Your task to perform on an android device: open wifi settings Image 0: 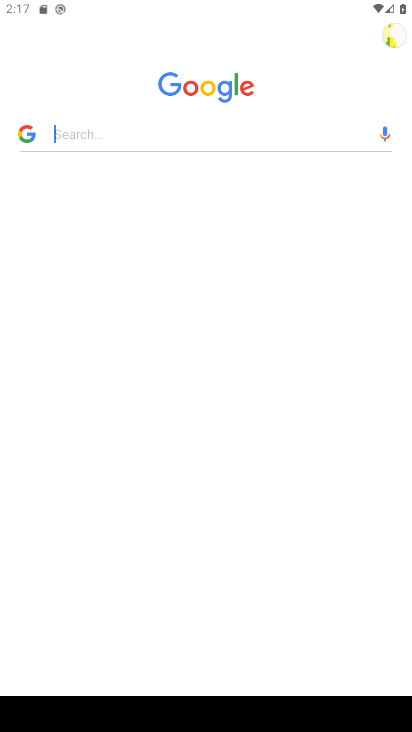
Step 0: press back button
Your task to perform on an android device: open wifi settings Image 1: 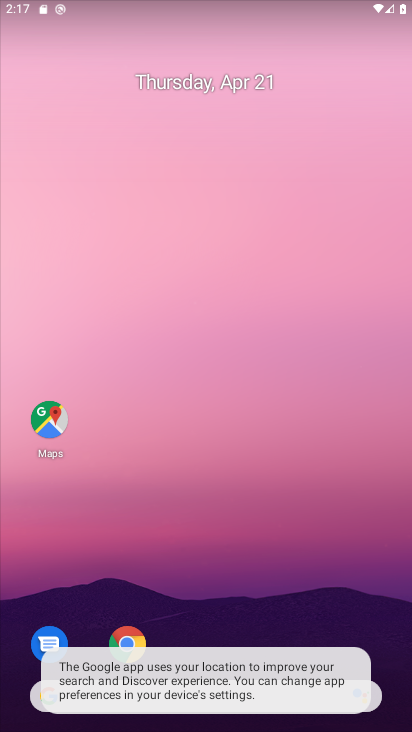
Step 1: drag from (210, 621) to (372, 50)
Your task to perform on an android device: open wifi settings Image 2: 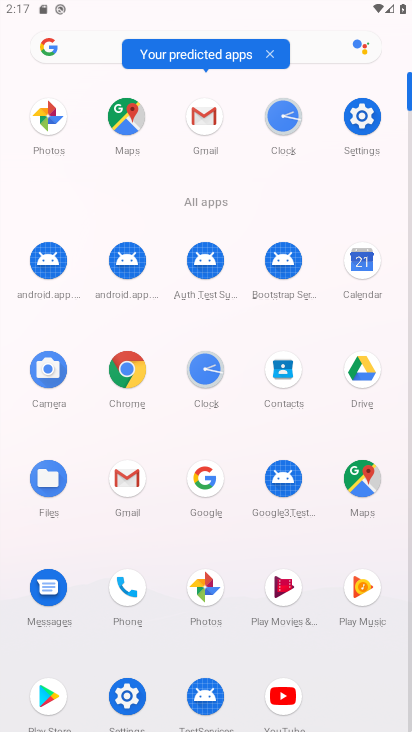
Step 2: click (365, 128)
Your task to perform on an android device: open wifi settings Image 3: 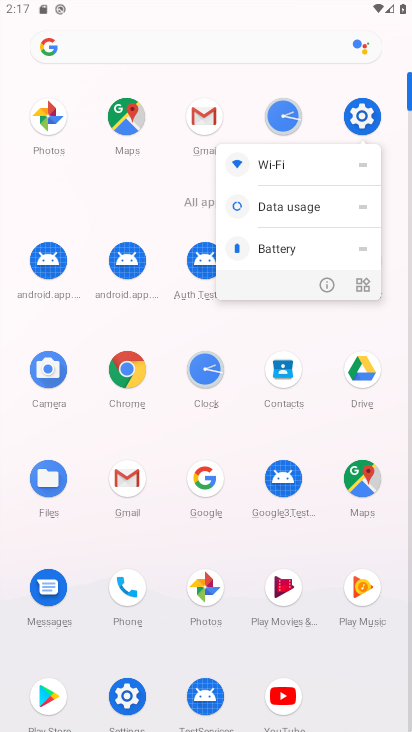
Step 3: click (365, 120)
Your task to perform on an android device: open wifi settings Image 4: 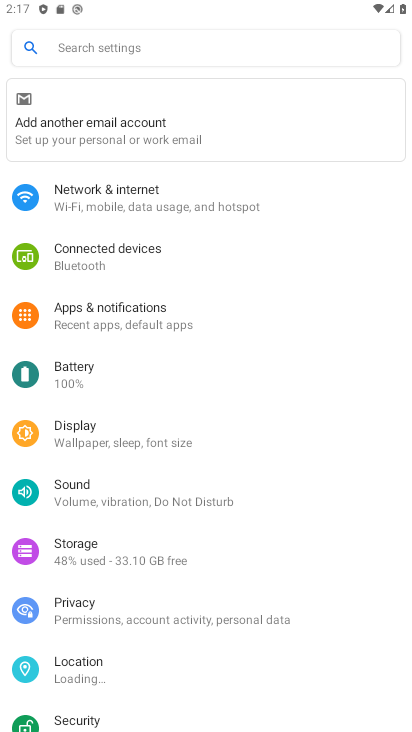
Step 4: click (173, 203)
Your task to perform on an android device: open wifi settings Image 5: 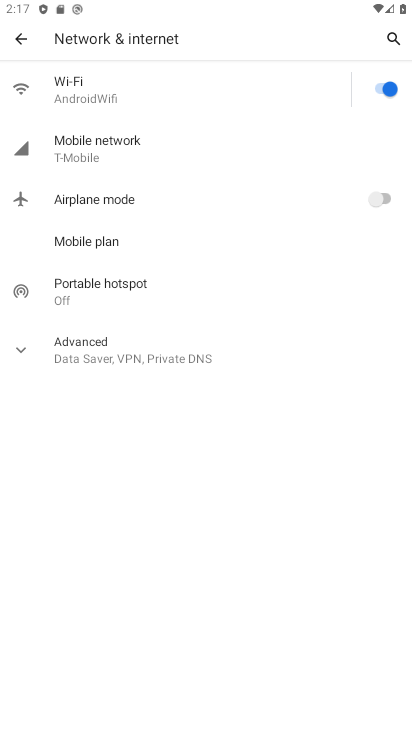
Step 5: click (164, 104)
Your task to perform on an android device: open wifi settings Image 6: 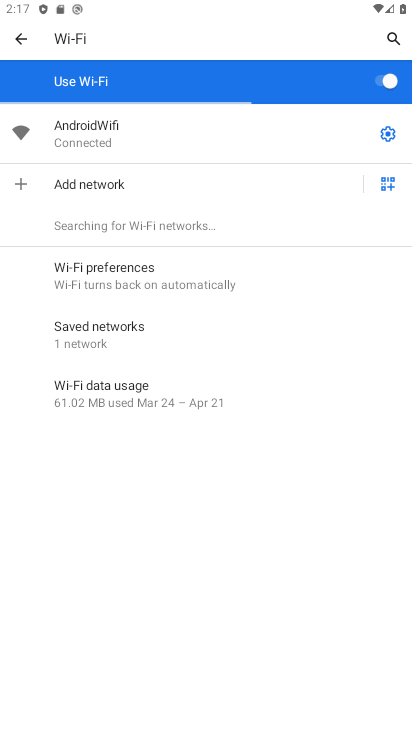
Step 6: task complete